Your task to perform on an android device: open app "NewsBreak: Local News & Alerts" Image 0: 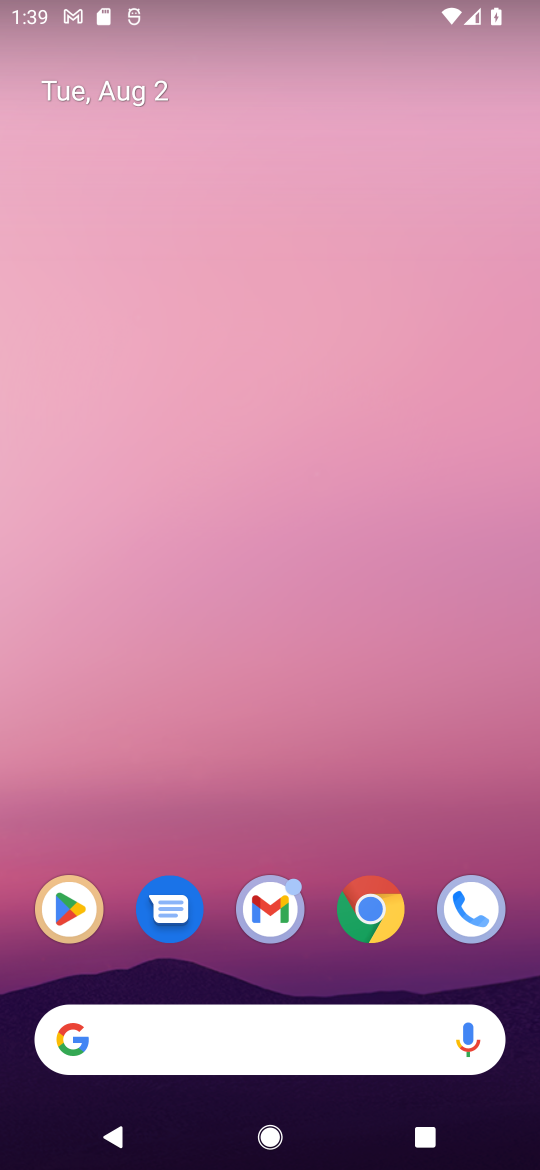
Step 0: click (76, 907)
Your task to perform on an android device: open app "NewsBreak: Local News & Alerts" Image 1: 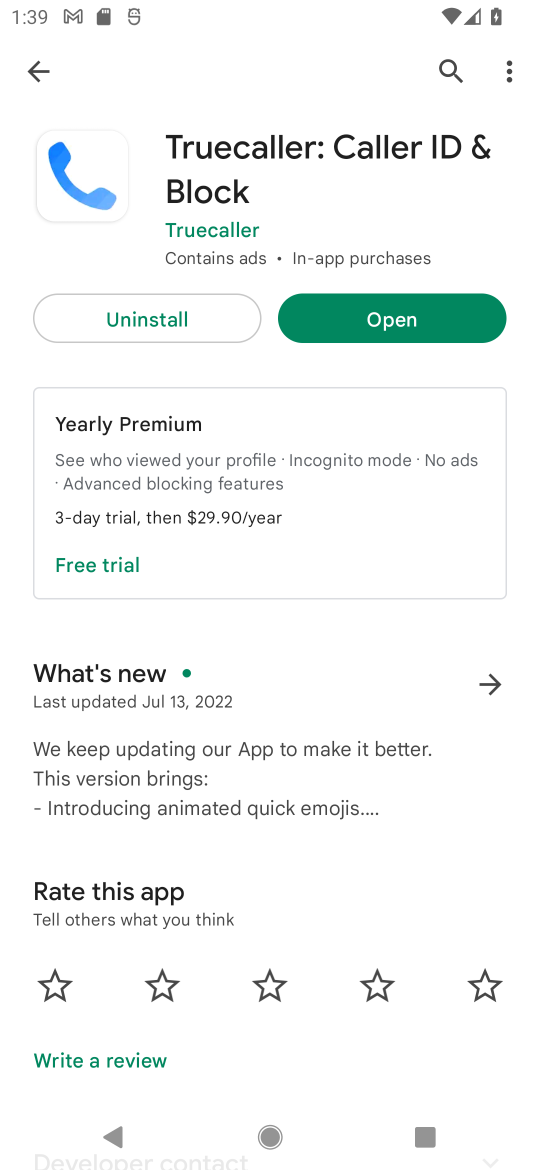
Step 1: click (437, 62)
Your task to perform on an android device: open app "NewsBreak: Local News & Alerts" Image 2: 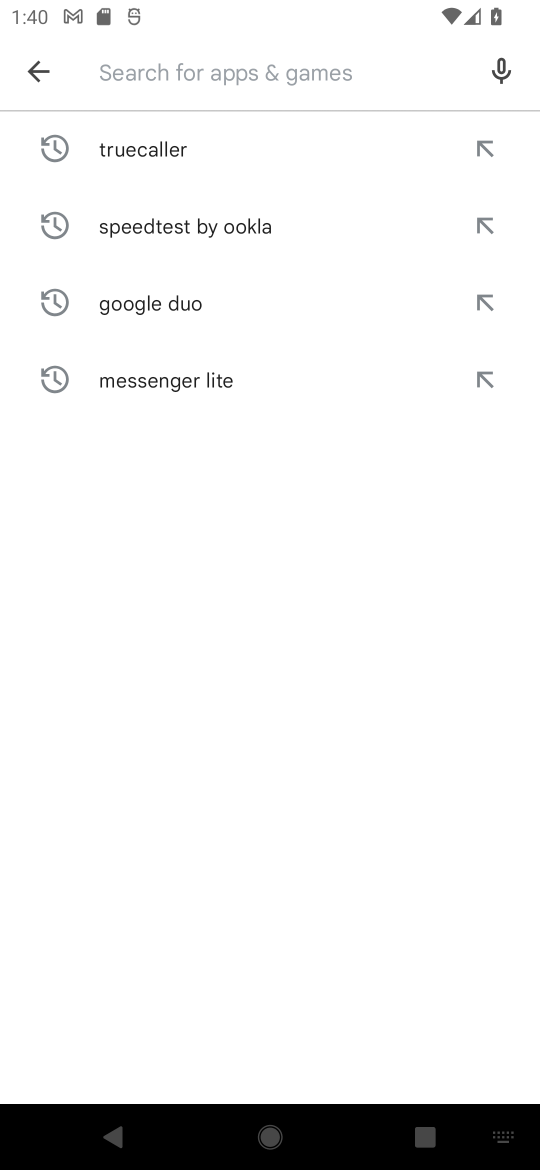
Step 2: type "NewsBreak"
Your task to perform on an android device: open app "NewsBreak: Local News & Alerts" Image 3: 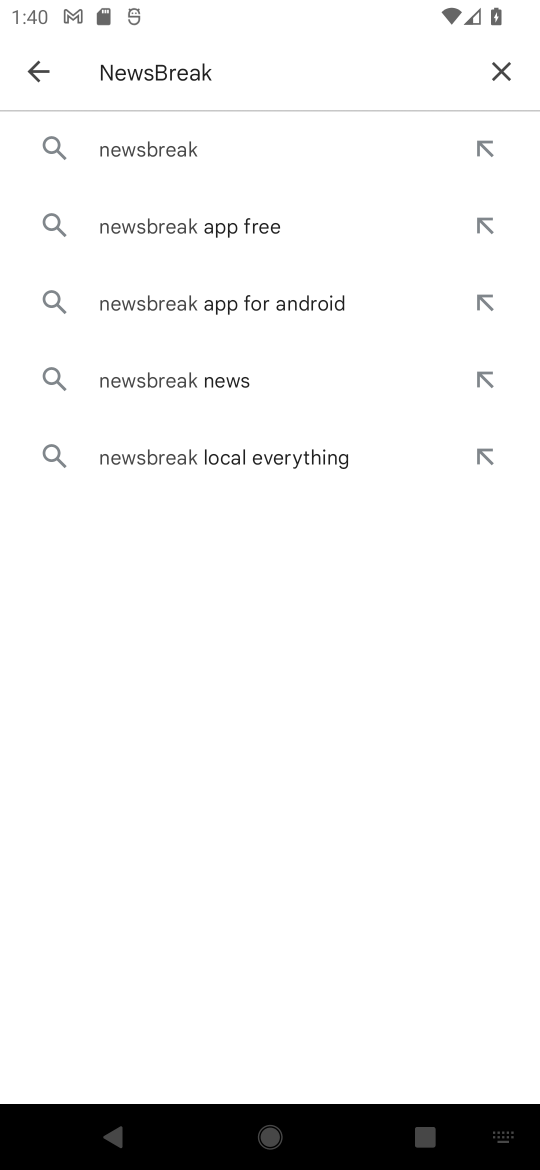
Step 3: click (164, 143)
Your task to perform on an android device: open app "NewsBreak: Local News & Alerts" Image 4: 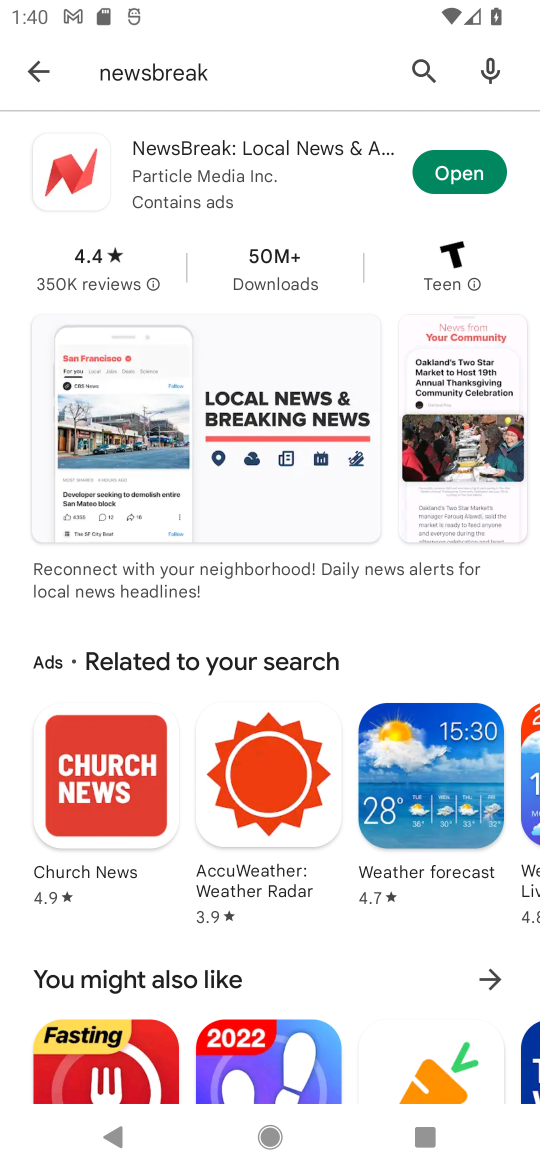
Step 4: click (164, 143)
Your task to perform on an android device: open app "NewsBreak: Local News & Alerts" Image 5: 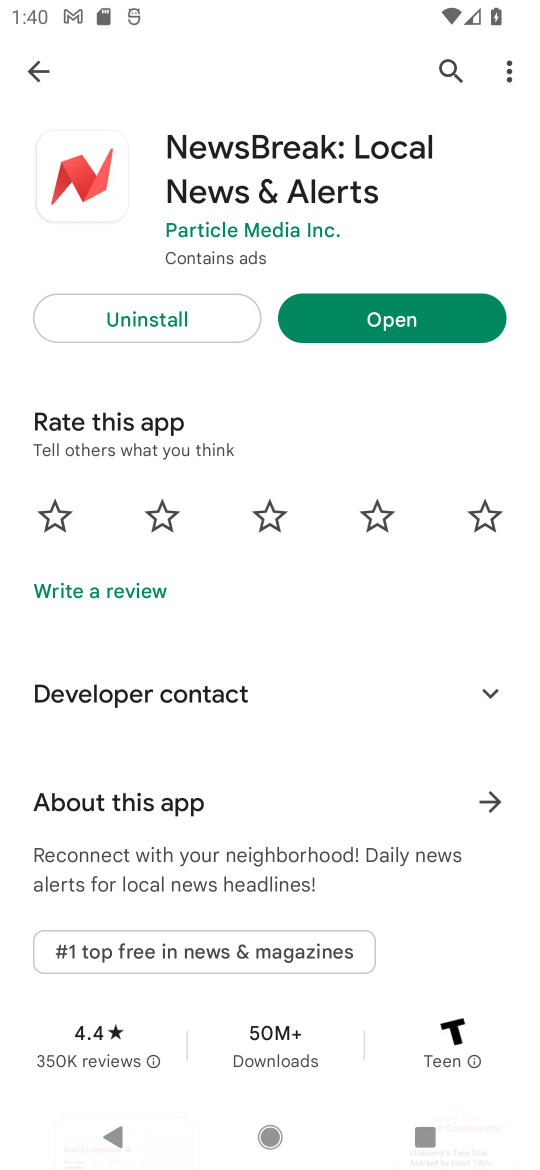
Step 5: click (380, 318)
Your task to perform on an android device: open app "NewsBreak: Local News & Alerts" Image 6: 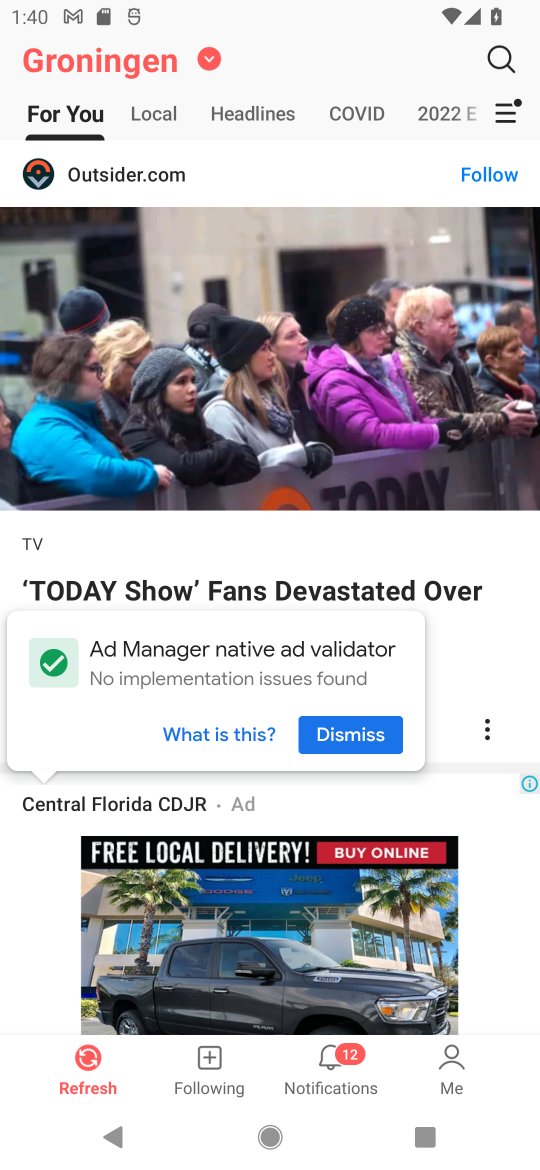
Step 6: task complete